Your task to perform on an android device: Go to ESPN.com Image 0: 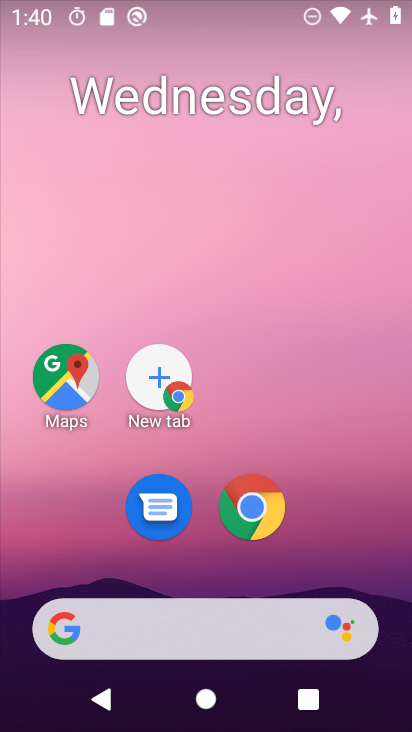
Step 0: drag from (325, 494) to (327, 32)
Your task to perform on an android device: Go to ESPN.com Image 1: 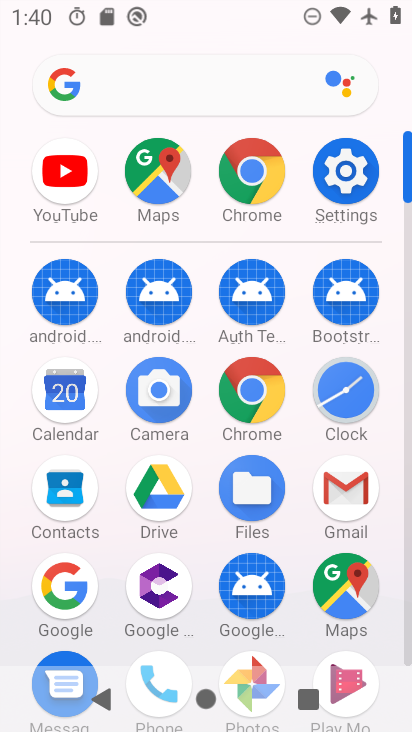
Step 1: click (279, 173)
Your task to perform on an android device: Go to ESPN.com Image 2: 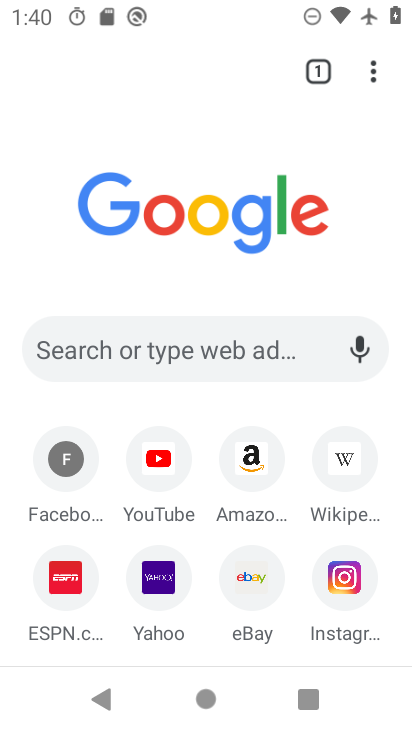
Step 2: click (166, 339)
Your task to perform on an android device: Go to ESPN.com Image 3: 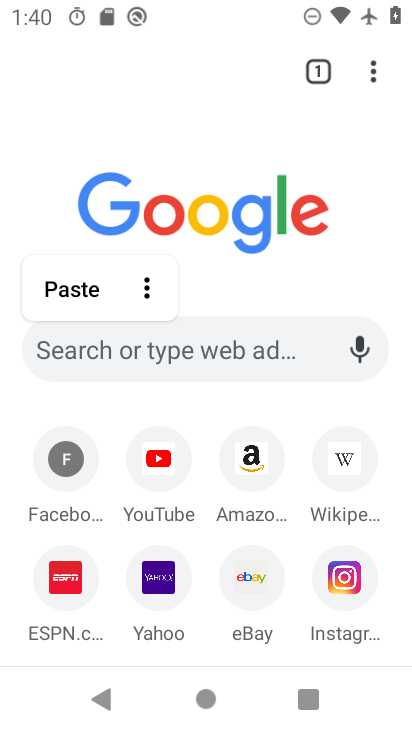
Step 3: click (169, 351)
Your task to perform on an android device: Go to ESPN.com Image 4: 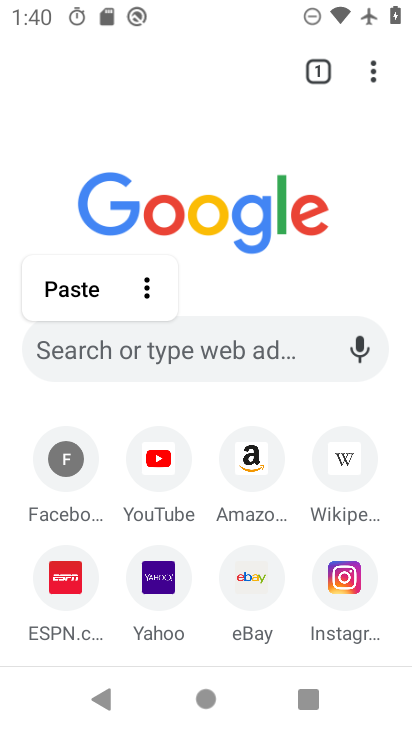
Step 4: type "espn.com"
Your task to perform on an android device: Go to ESPN.com Image 5: 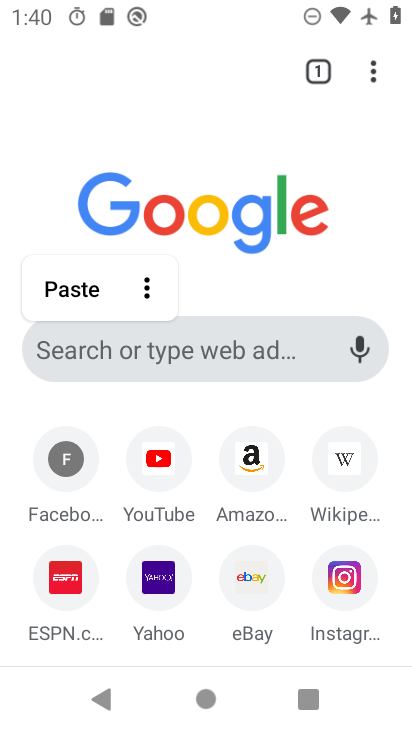
Step 5: click (201, 346)
Your task to perform on an android device: Go to ESPN.com Image 6: 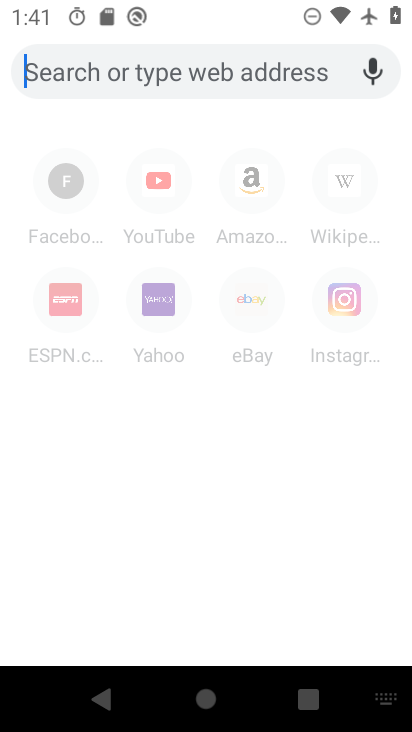
Step 6: type "espn.com"
Your task to perform on an android device: Go to ESPN.com Image 7: 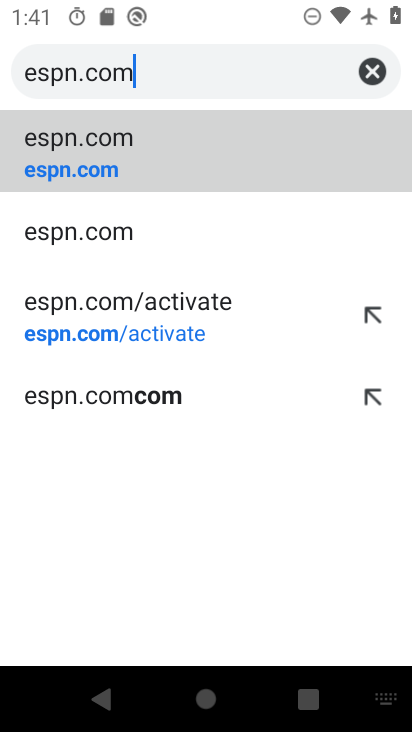
Step 7: click (135, 147)
Your task to perform on an android device: Go to ESPN.com Image 8: 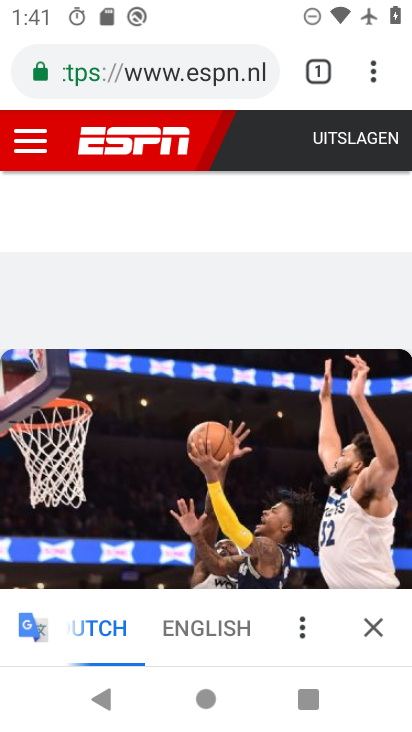
Step 8: task complete